Your task to perform on an android device: Go to Yahoo.com Image 0: 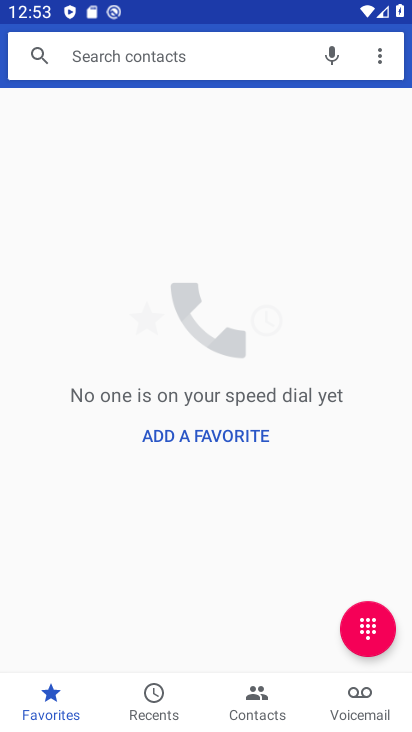
Step 0: press home button
Your task to perform on an android device: Go to Yahoo.com Image 1: 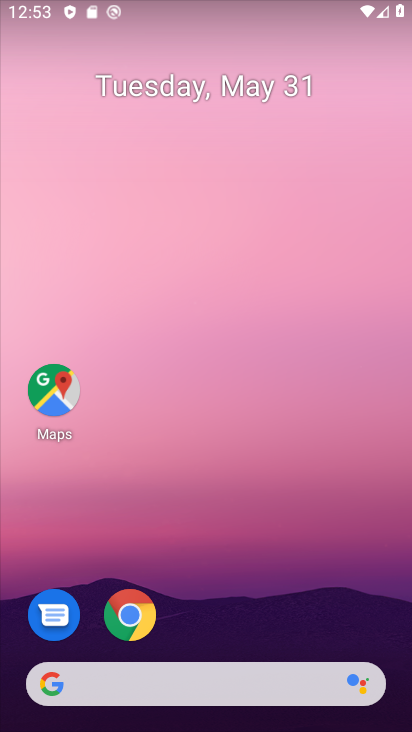
Step 1: drag from (353, 558) to (323, 193)
Your task to perform on an android device: Go to Yahoo.com Image 2: 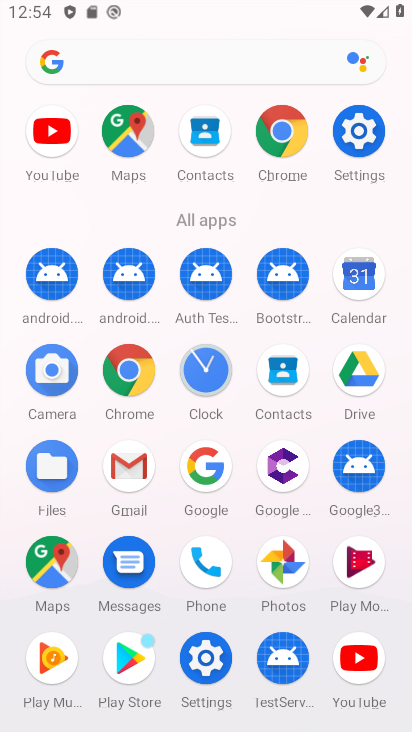
Step 2: click (150, 392)
Your task to perform on an android device: Go to Yahoo.com Image 3: 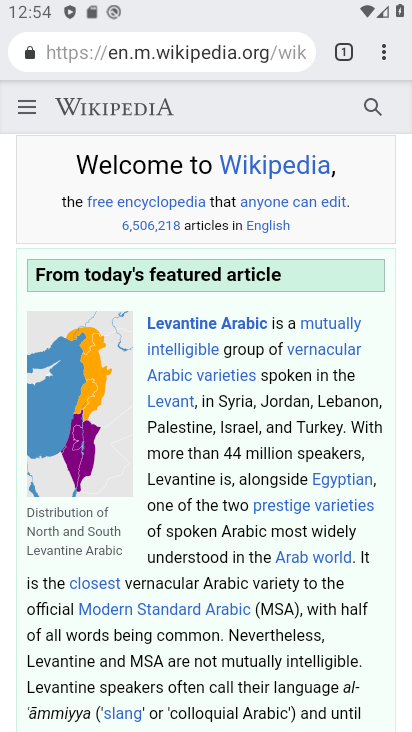
Step 3: click (211, 56)
Your task to perform on an android device: Go to Yahoo.com Image 4: 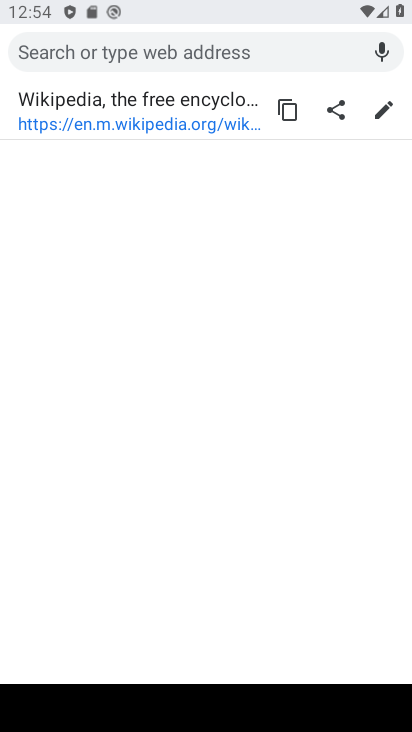
Step 4: click (219, 49)
Your task to perform on an android device: Go to Yahoo.com Image 5: 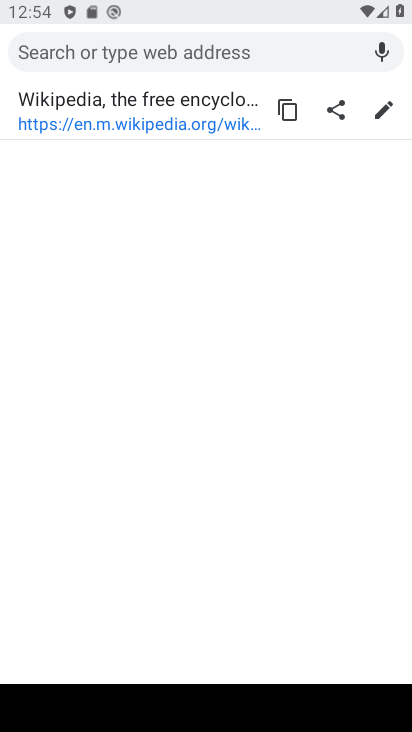
Step 5: type "yahoo.com"
Your task to perform on an android device: Go to Yahoo.com Image 6: 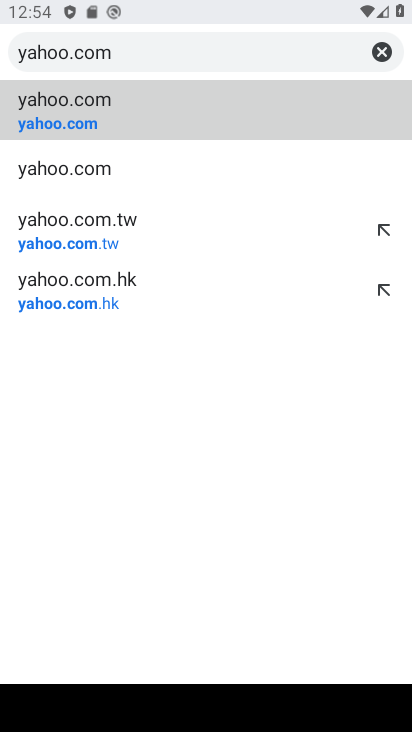
Step 6: click (145, 108)
Your task to perform on an android device: Go to Yahoo.com Image 7: 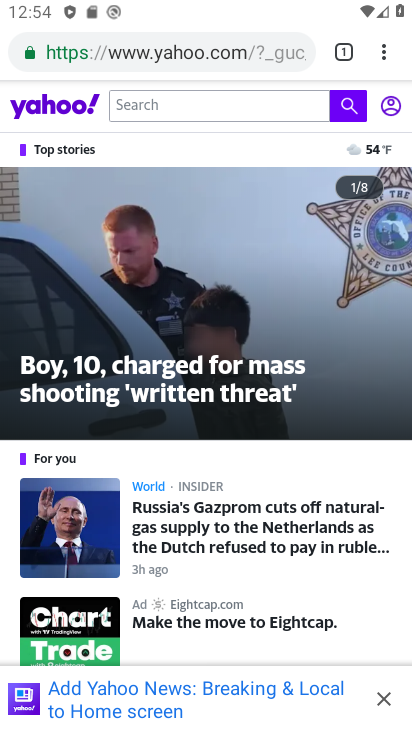
Step 7: task complete